Your task to perform on an android device: turn off airplane mode Image 0: 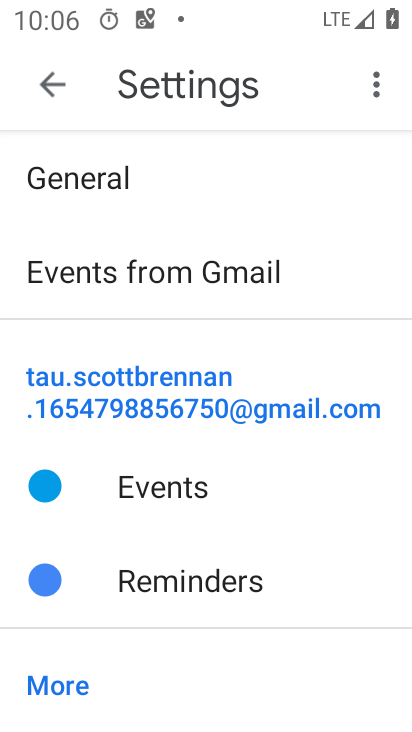
Step 0: press home button
Your task to perform on an android device: turn off airplane mode Image 1: 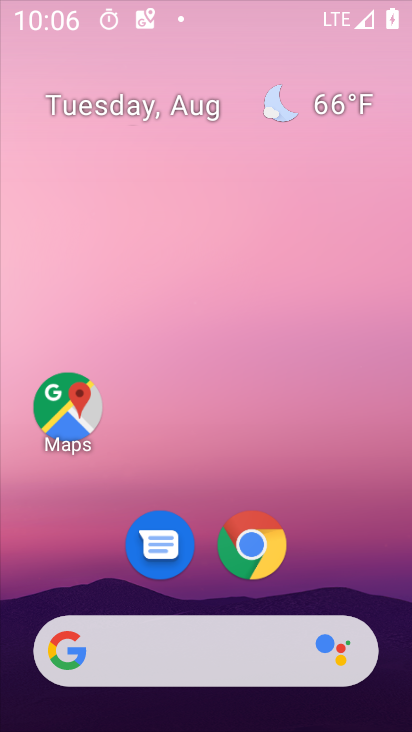
Step 1: drag from (190, 516) to (280, 94)
Your task to perform on an android device: turn off airplane mode Image 2: 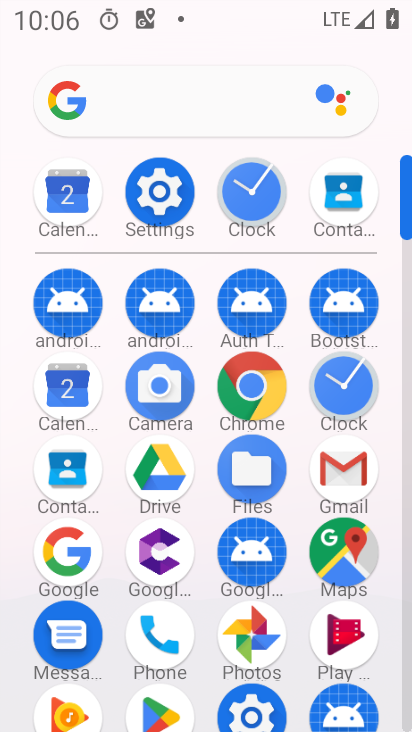
Step 2: click (164, 205)
Your task to perform on an android device: turn off airplane mode Image 3: 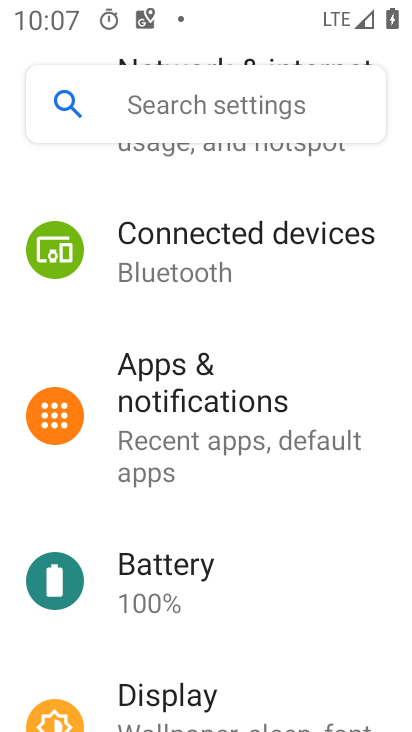
Step 3: drag from (222, 266) to (270, 715)
Your task to perform on an android device: turn off airplane mode Image 4: 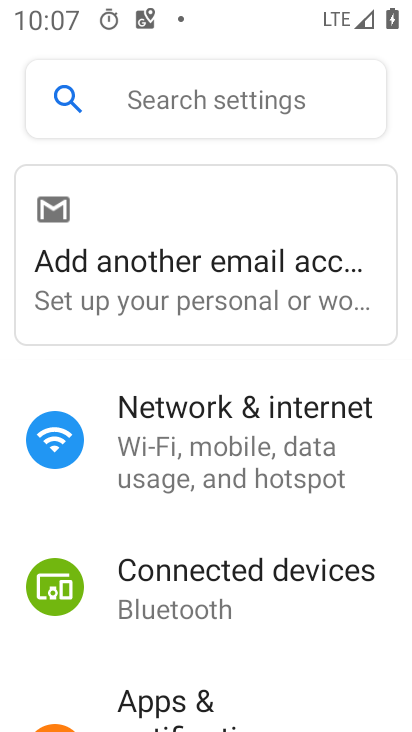
Step 4: drag from (264, 297) to (226, 650)
Your task to perform on an android device: turn off airplane mode Image 5: 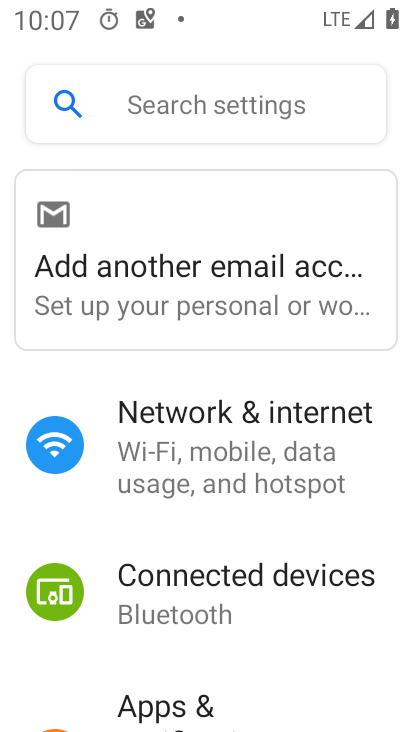
Step 5: click (234, 472)
Your task to perform on an android device: turn off airplane mode Image 6: 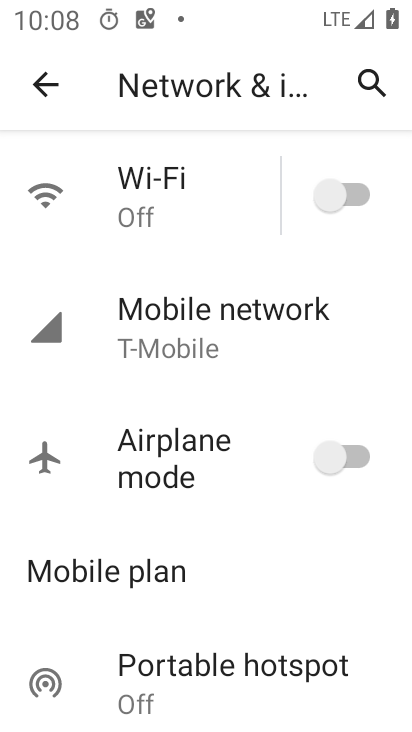
Step 6: task complete